Your task to perform on an android device: Open calendar and show me the fourth week of next month Image 0: 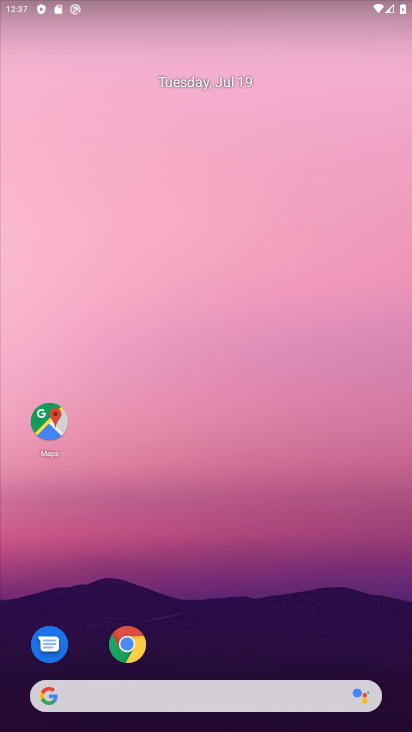
Step 0: drag from (254, 598) to (229, 53)
Your task to perform on an android device: Open calendar and show me the fourth week of next month Image 1: 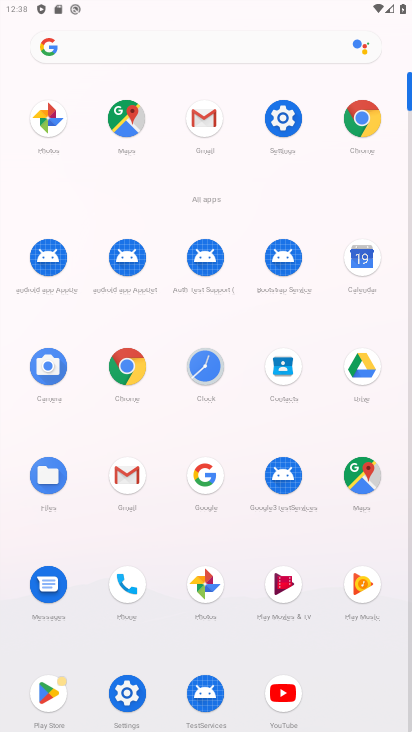
Step 1: click (358, 264)
Your task to perform on an android device: Open calendar and show me the fourth week of next month Image 2: 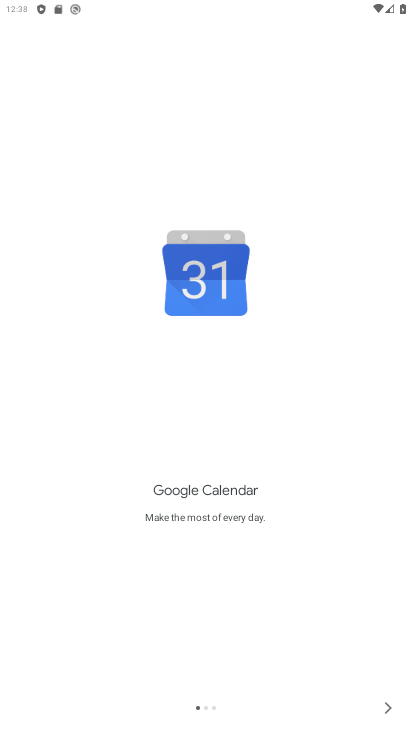
Step 2: click (392, 714)
Your task to perform on an android device: Open calendar and show me the fourth week of next month Image 3: 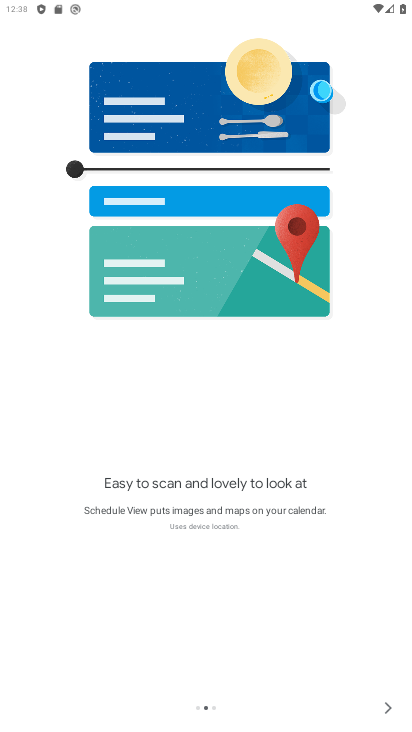
Step 3: click (392, 714)
Your task to perform on an android device: Open calendar and show me the fourth week of next month Image 4: 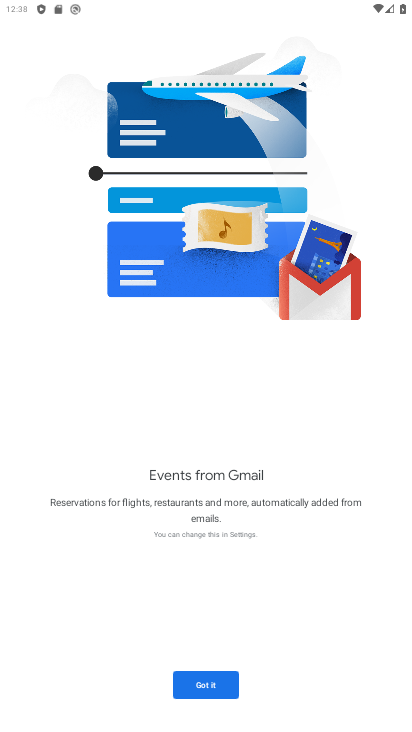
Step 4: click (218, 681)
Your task to perform on an android device: Open calendar and show me the fourth week of next month Image 5: 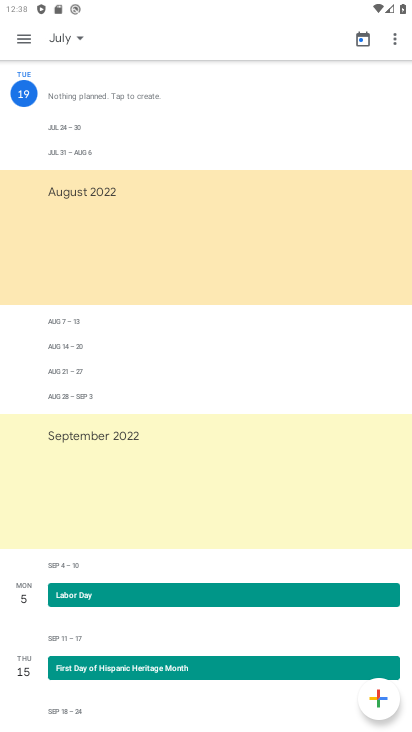
Step 5: click (25, 31)
Your task to perform on an android device: Open calendar and show me the fourth week of next month Image 6: 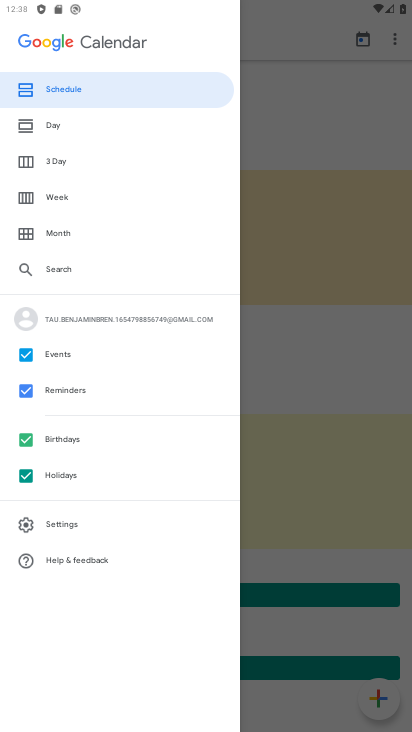
Step 6: click (74, 194)
Your task to perform on an android device: Open calendar and show me the fourth week of next month Image 7: 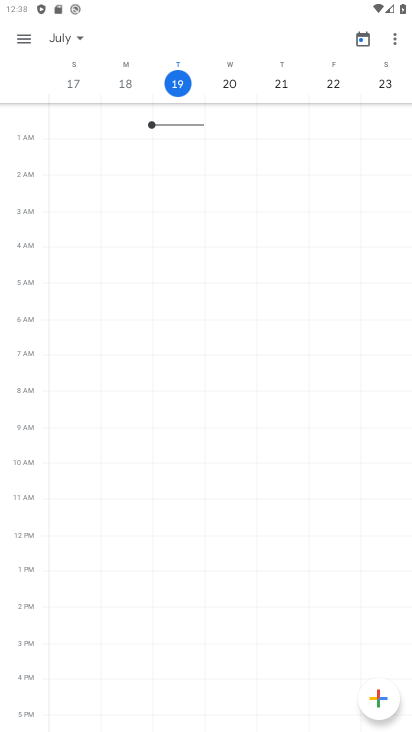
Step 7: click (75, 32)
Your task to perform on an android device: Open calendar and show me the fourth week of next month Image 8: 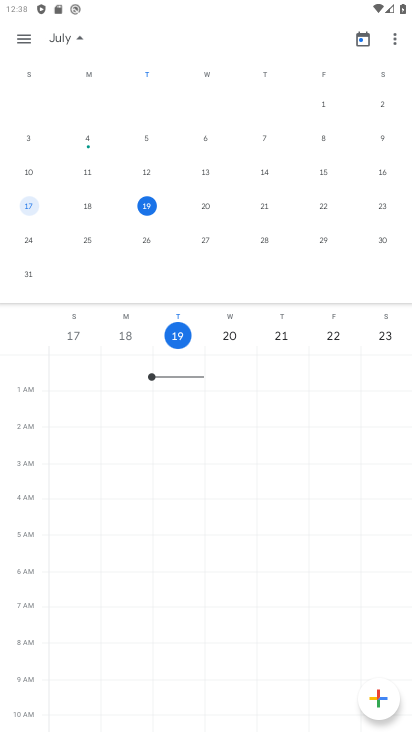
Step 8: drag from (314, 242) to (11, 235)
Your task to perform on an android device: Open calendar and show me the fourth week of next month Image 9: 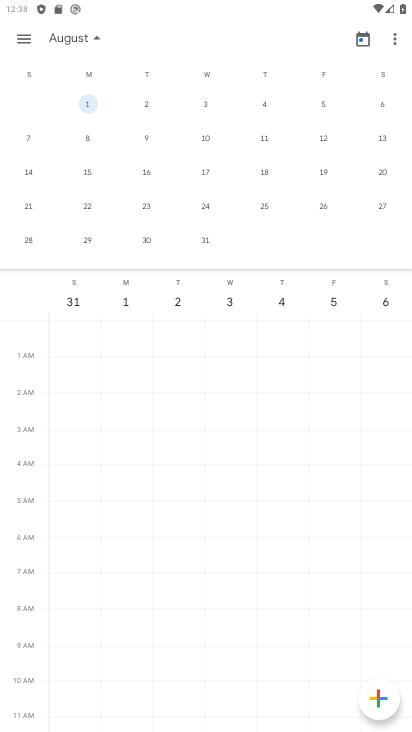
Step 9: click (208, 208)
Your task to perform on an android device: Open calendar and show me the fourth week of next month Image 10: 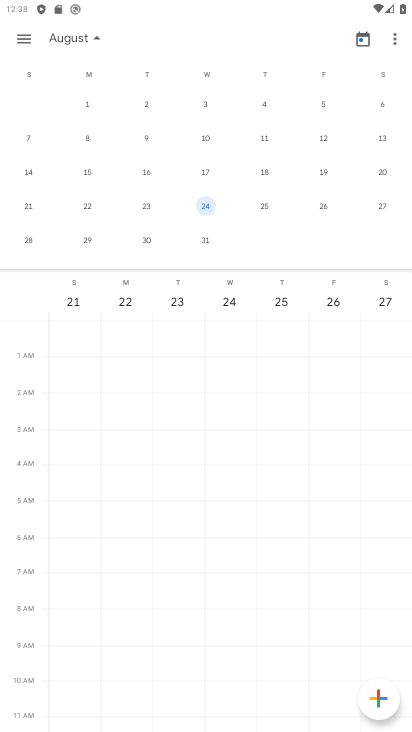
Step 10: task complete